Your task to perform on an android device: find which apps use the phone's location Image 0: 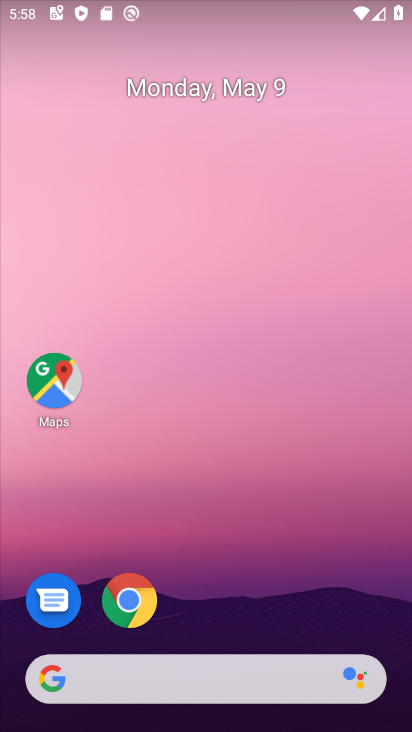
Step 0: drag from (199, 633) to (232, 209)
Your task to perform on an android device: find which apps use the phone's location Image 1: 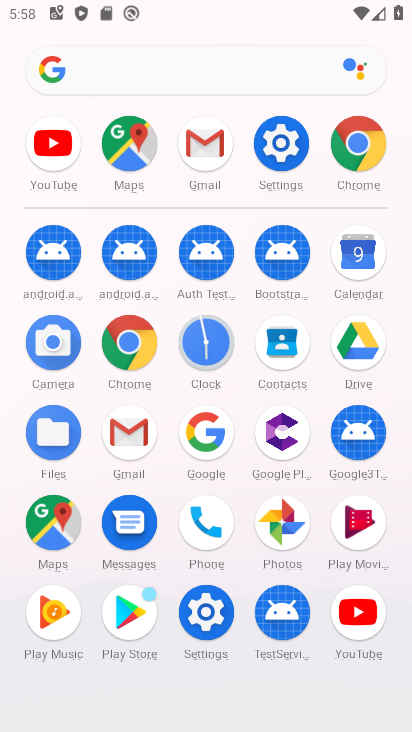
Step 1: click (283, 164)
Your task to perform on an android device: find which apps use the phone's location Image 2: 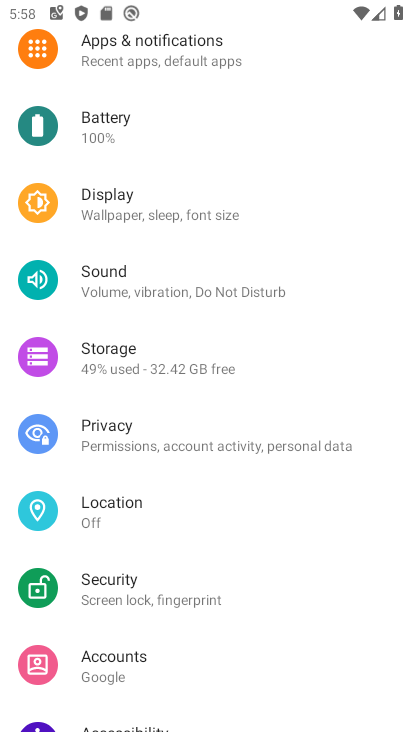
Step 2: drag from (183, 488) to (212, 265)
Your task to perform on an android device: find which apps use the phone's location Image 3: 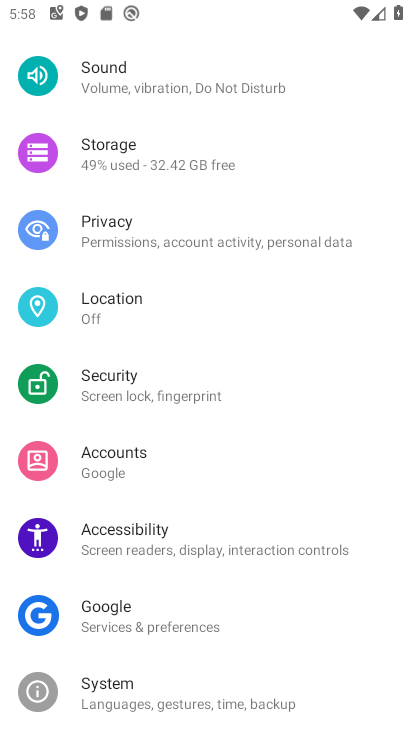
Step 3: click (126, 315)
Your task to perform on an android device: find which apps use the phone's location Image 4: 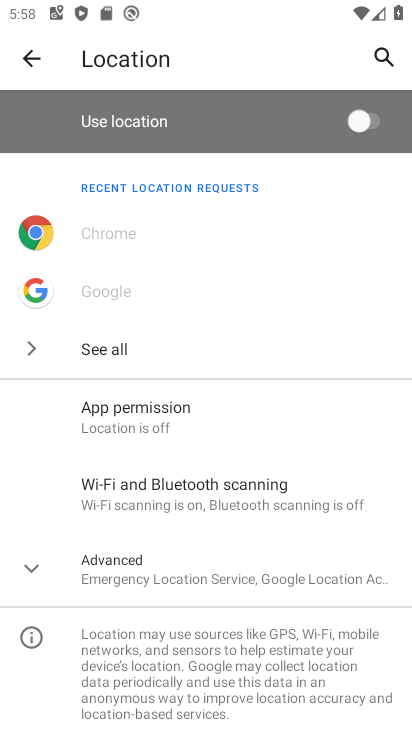
Step 4: click (137, 431)
Your task to perform on an android device: find which apps use the phone's location Image 5: 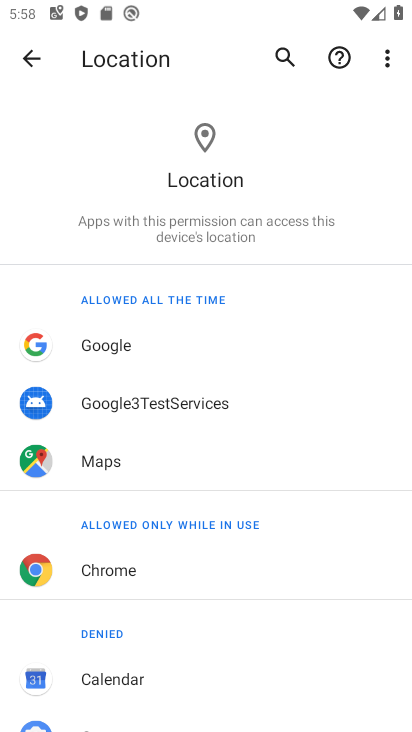
Step 5: task complete